Your task to perform on an android device: Go to CNN.com Image 0: 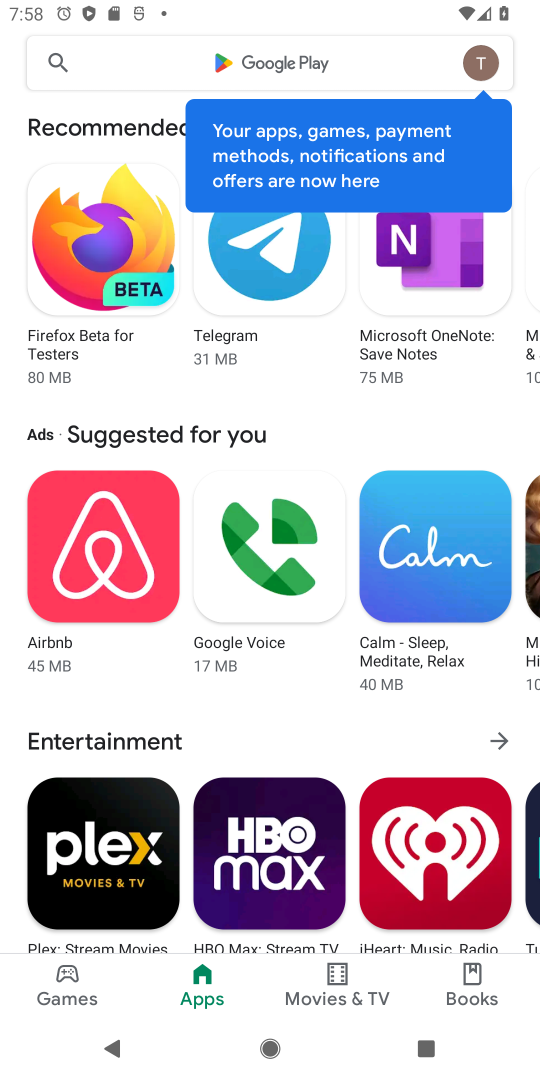
Step 0: press back button
Your task to perform on an android device: Go to CNN.com Image 1: 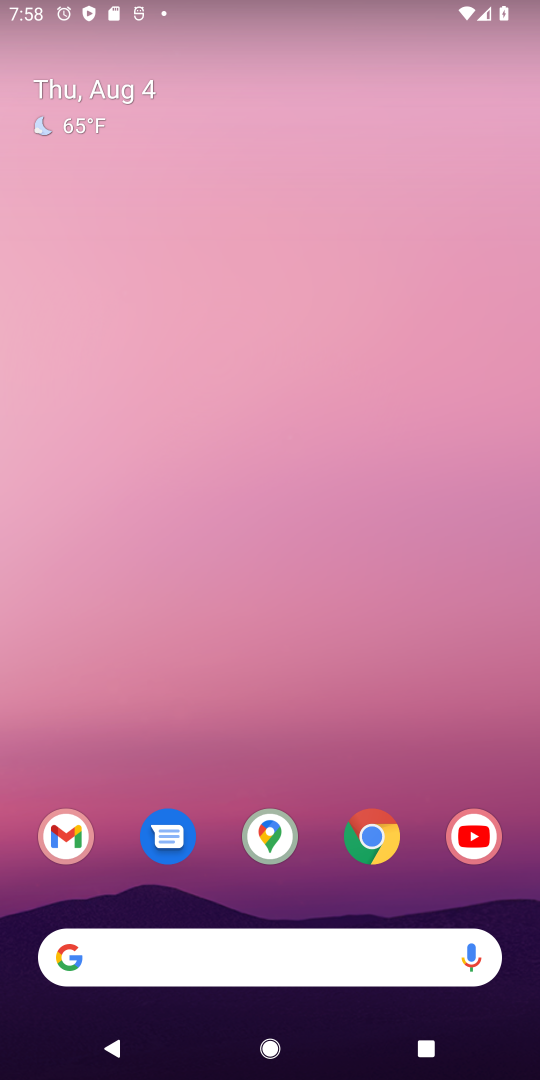
Step 1: click (375, 847)
Your task to perform on an android device: Go to CNN.com Image 2: 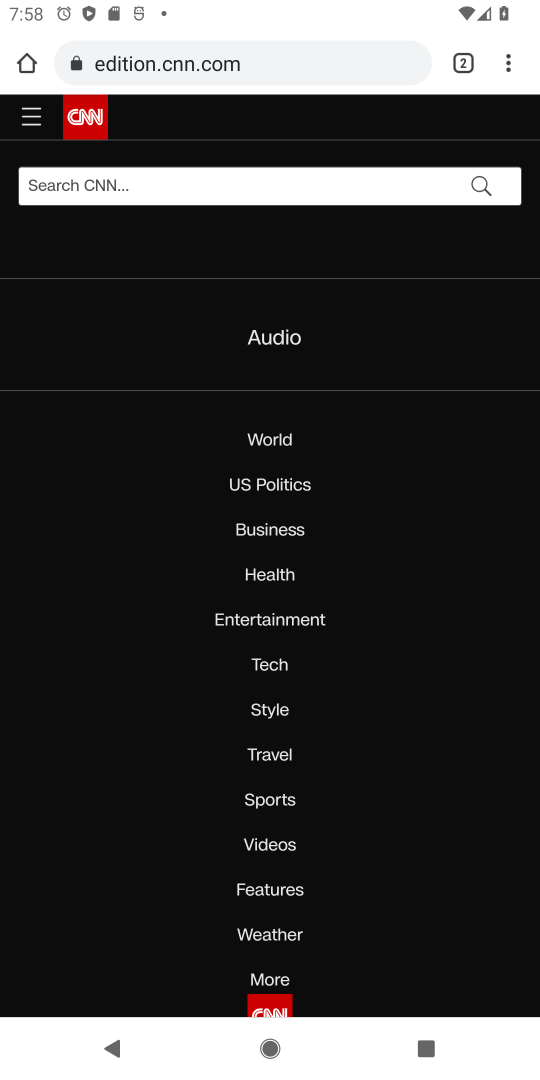
Step 2: click (448, 55)
Your task to perform on an android device: Go to CNN.com Image 3: 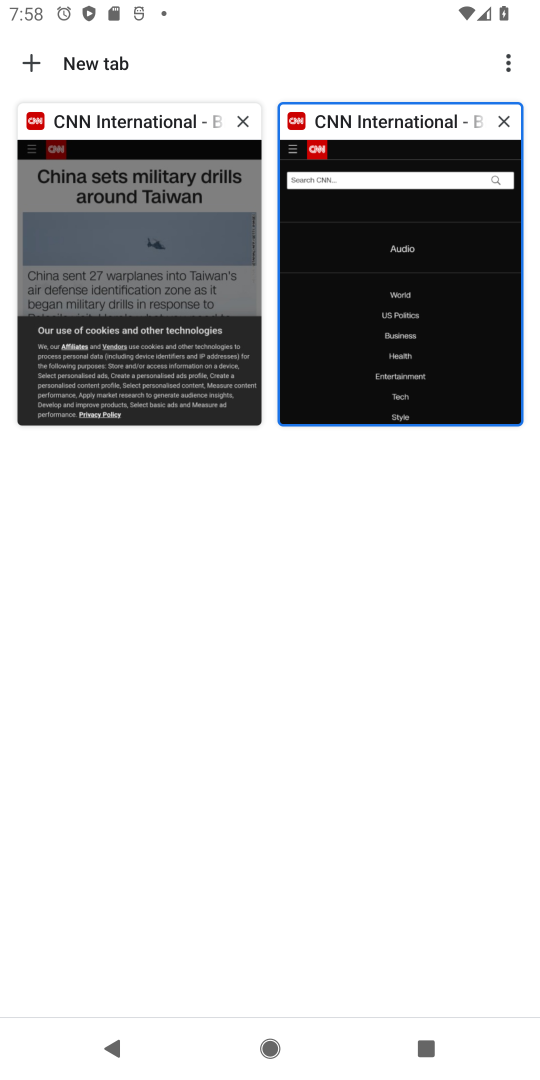
Step 3: click (87, 254)
Your task to perform on an android device: Go to CNN.com Image 4: 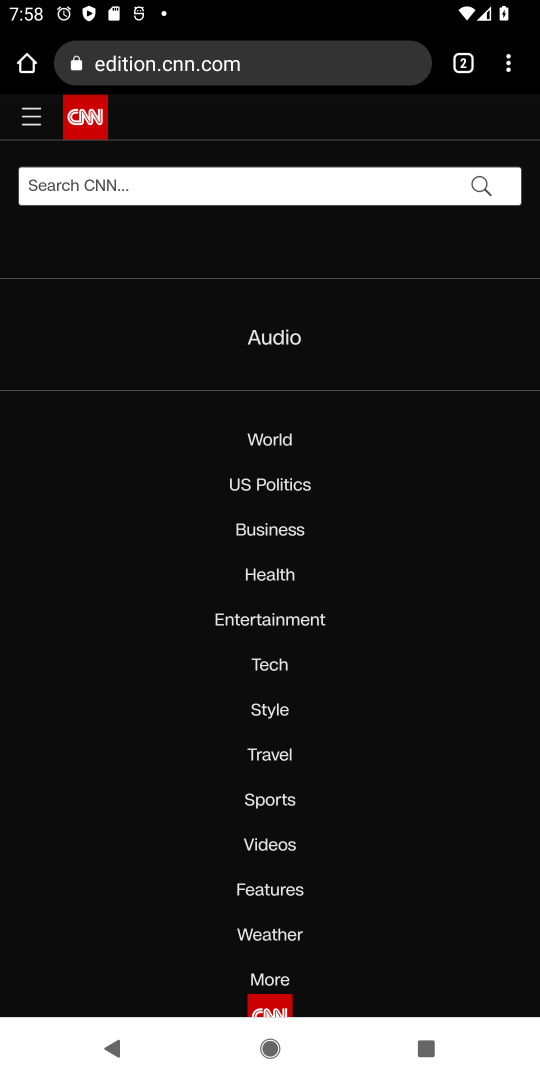
Step 4: task complete